Your task to perform on an android device: Check the weather Image 0: 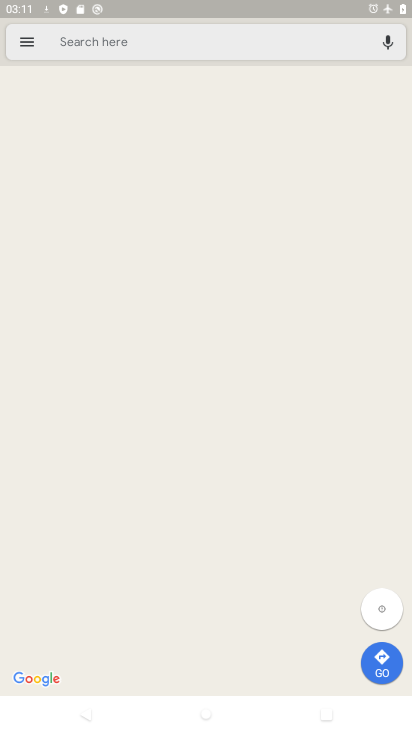
Step 0: press home button
Your task to perform on an android device: Check the weather Image 1: 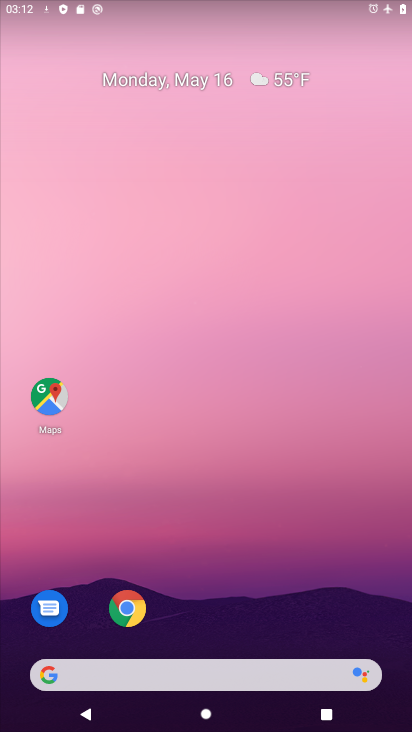
Step 1: drag from (215, 629) to (195, 222)
Your task to perform on an android device: Check the weather Image 2: 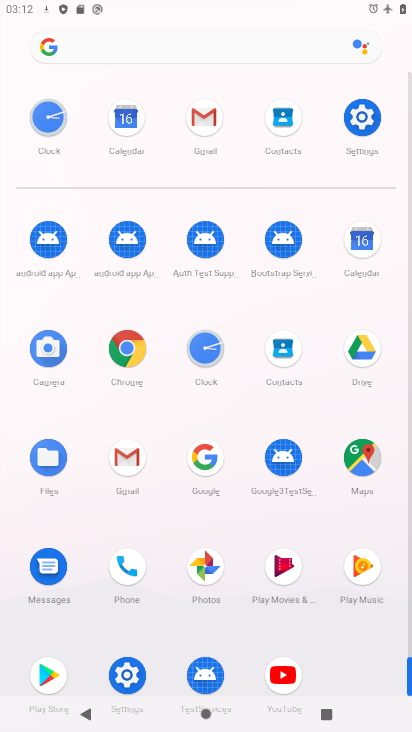
Step 2: click (212, 464)
Your task to perform on an android device: Check the weather Image 3: 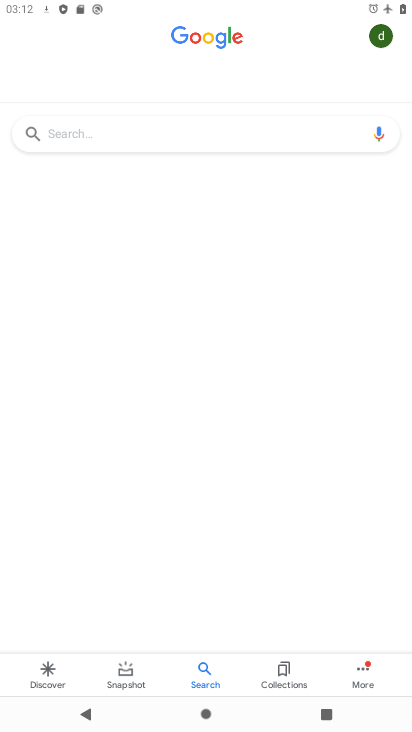
Step 3: click (155, 136)
Your task to perform on an android device: Check the weather Image 4: 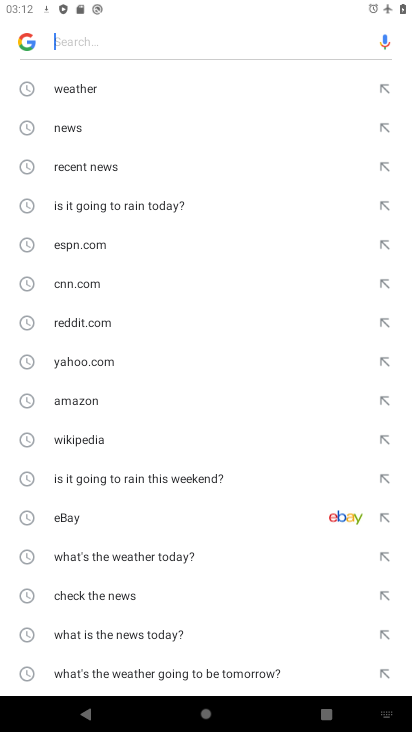
Step 4: click (87, 90)
Your task to perform on an android device: Check the weather Image 5: 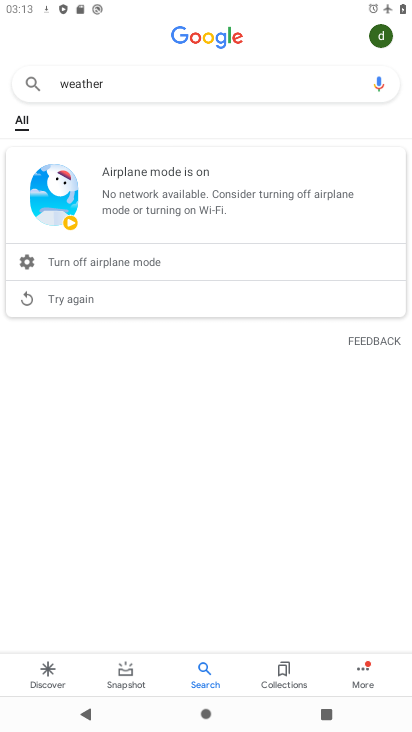
Step 5: task complete